Your task to perform on an android device: see sites visited before in the chrome app Image 0: 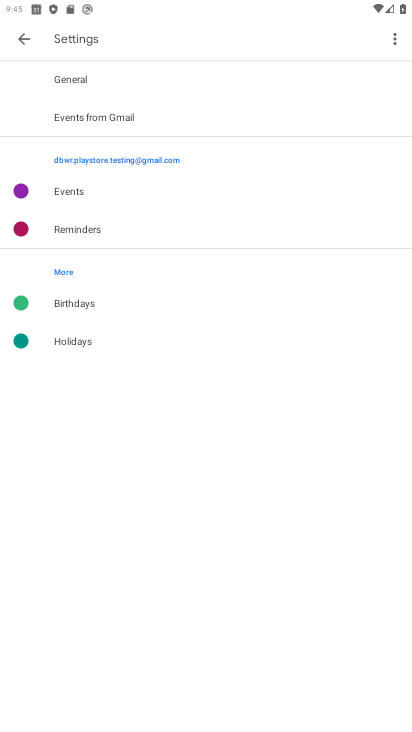
Step 0: press back button
Your task to perform on an android device: see sites visited before in the chrome app Image 1: 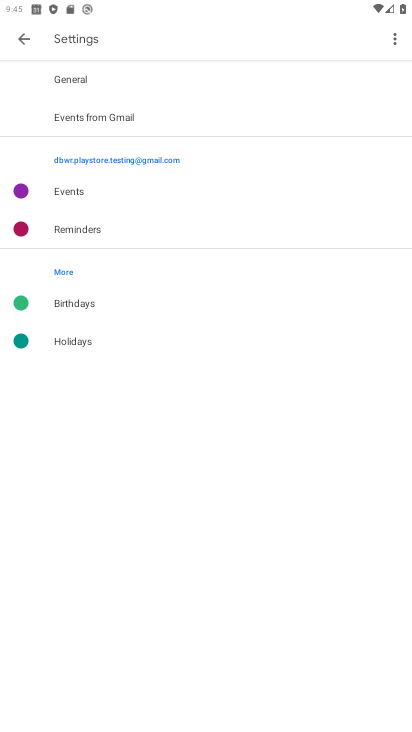
Step 1: press back button
Your task to perform on an android device: see sites visited before in the chrome app Image 2: 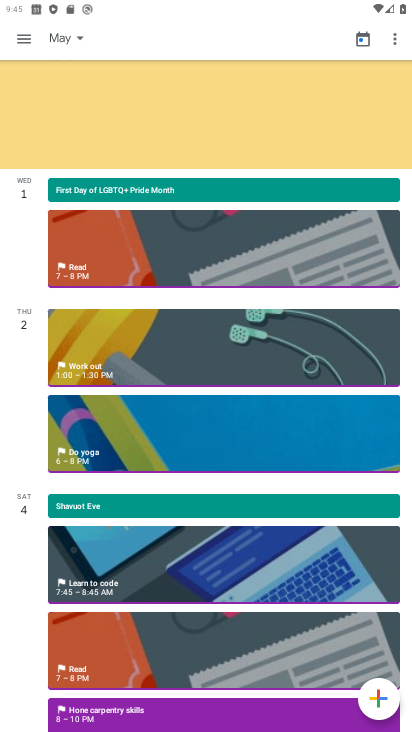
Step 2: press home button
Your task to perform on an android device: see sites visited before in the chrome app Image 3: 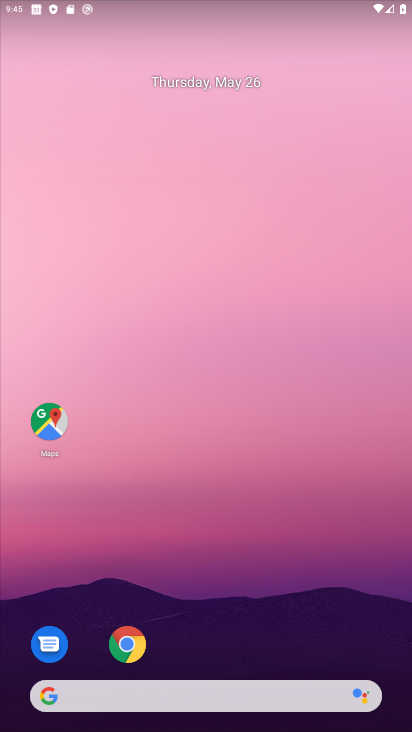
Step 3: drag from (265, 415) to (173, 86)
Your task to perform on an android device: see sites visited before in the chrome app Image 4: 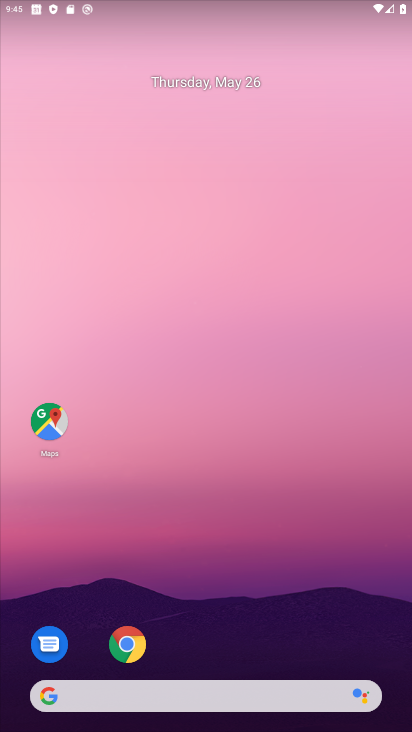
Step 4: drag from (301, 684) to (205, 0)
Your task to perform on an android device: see sites visited before in the chrome app Image 5: 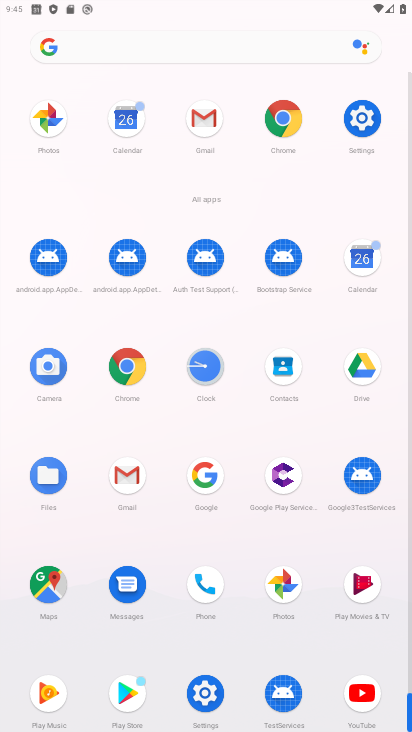
Step 5: click (290, 126)
Your task to perform on an android device: see sites visited before in the chrome app Image 6: 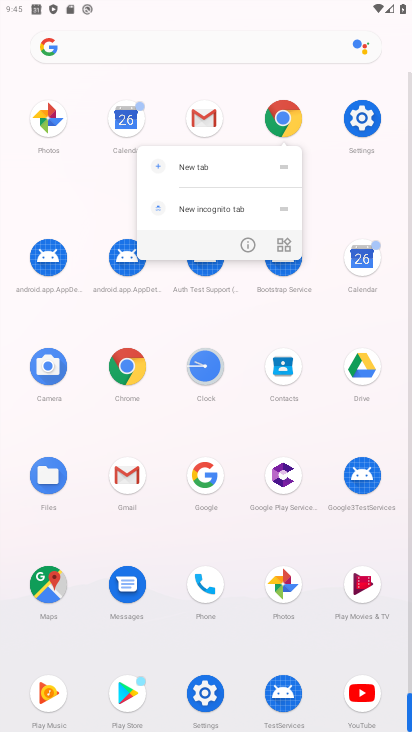
Step 6: click (290, 126)
Your task to perform on an android device: see sites visited before in the chrome app Image 7: 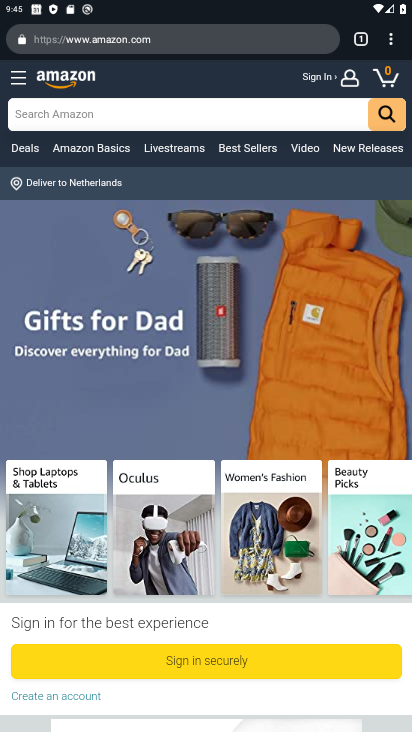
Step 7: drag from (397, 42) to (251, 189)
Your task to perform on an android device: see sites visited before in the chrome app Image 8: 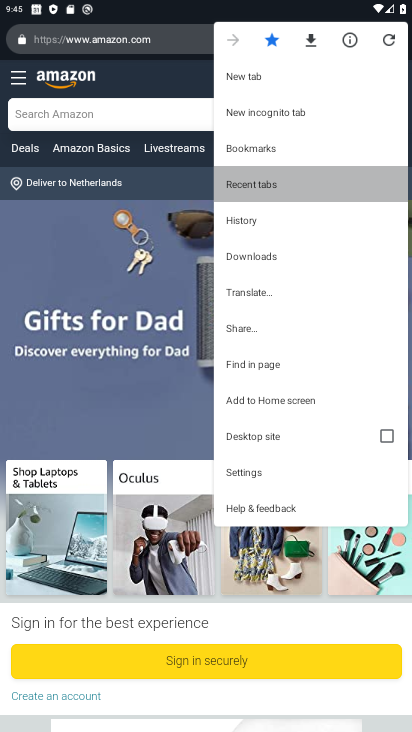
Step 8: click (254, 192)
Your task to perform on an android device: see sites visited before in the chrome app Image 9: 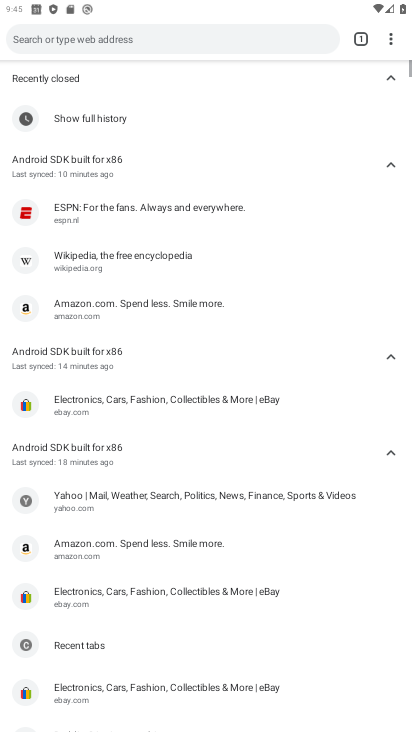
Step 9: click (260, 197)
Your task to perform on an android device: see sites visited before in the chrome app Image 10: 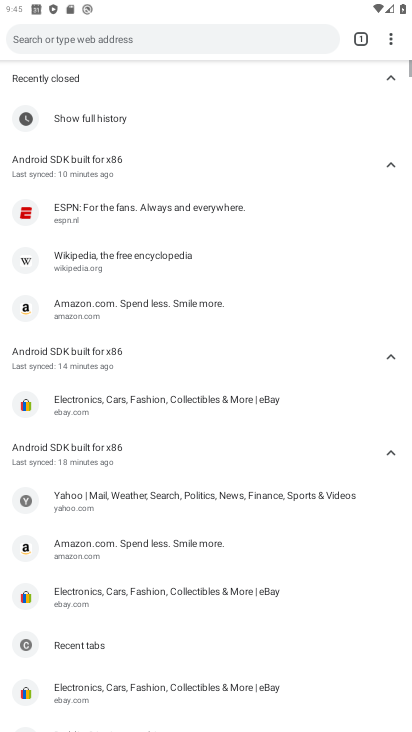
Step 10: click (260, 197)
Your task to perform on an android device: see sites visited before in the chrome app Image 11: 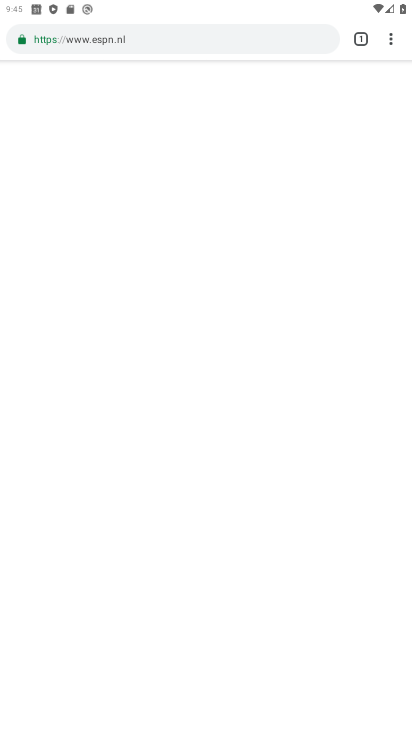
Step 11: task complete